Your task to perform on an android device: choose inbox layout in the gmail app Image 0: 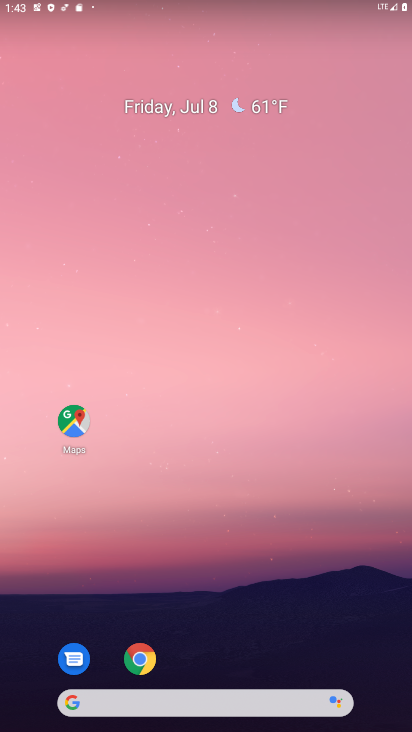
Step 0: drag from (218, 672) to (183, 164)
Your task to perform on an android device: choose inbox layout in the gmail app Image 1: 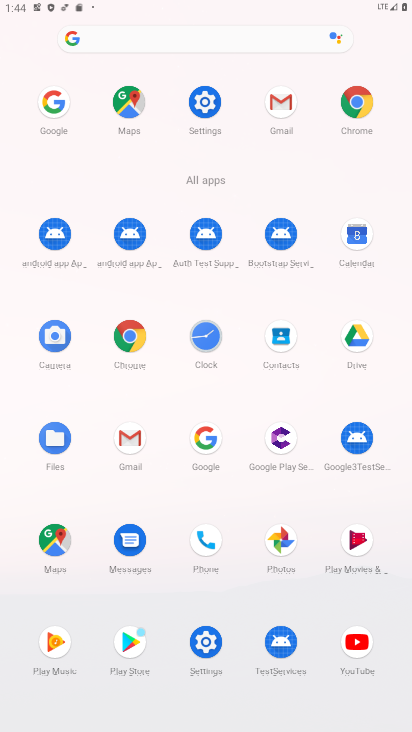
Step 1: click (142, 449)
Your task to perform on an android device: choose inbox layout in the gmail app Image 2: 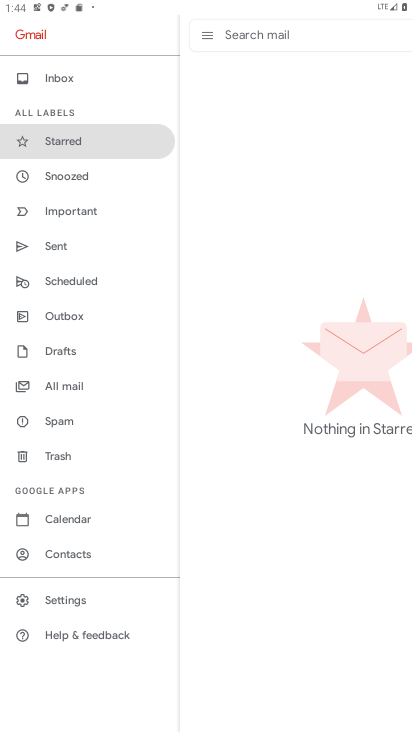
Step 2: click (69, 65)
Your task to perform on an android device: choose inbox layout in the gmail app Image 3: 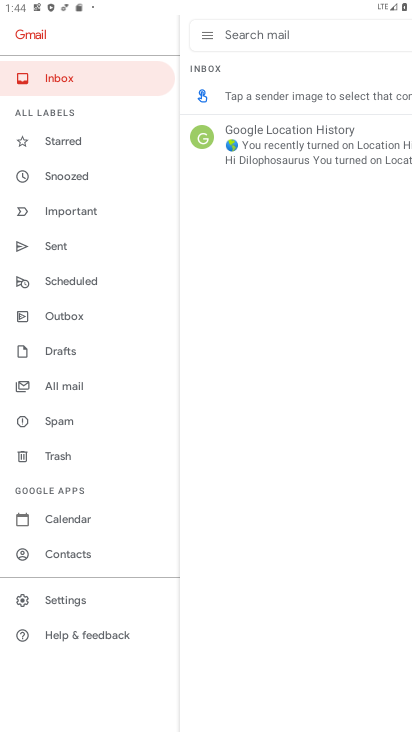
Step 3: task complete